Your task to perform on an android device: toggle translation in the chrome app Image 0: 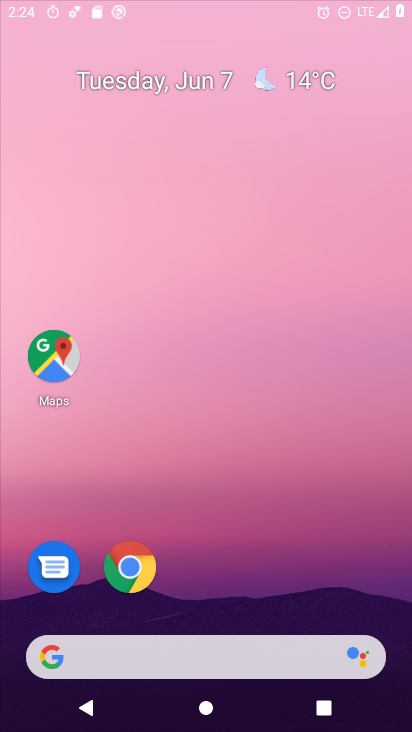
Step 0: drag from (270, 563) to (385, 18)
Your task to perform on an android device: toggle translation in the chrome app Image 1: 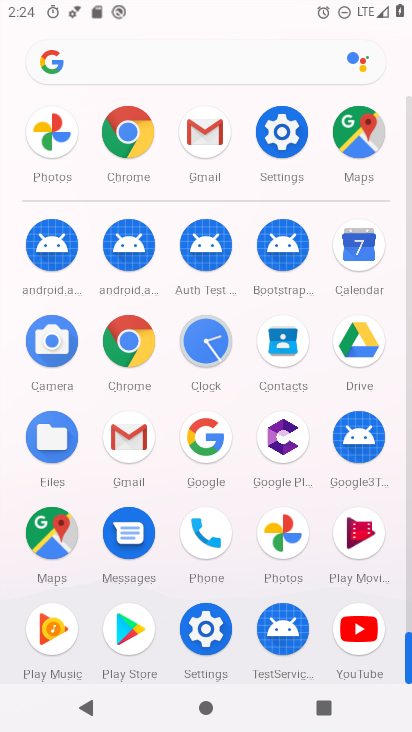
Step 1: click (141, 137)
Your task to perform on an android device: toggle translation in the chrome app Image 2: 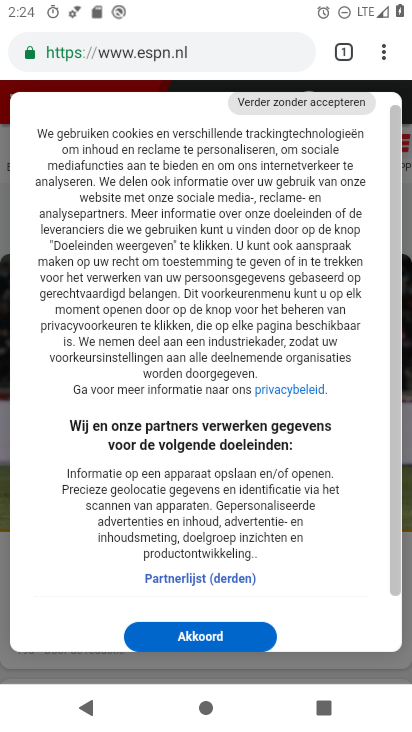
Step 2: drag from (382, 53) to (180, 611)
Your task to perform on an android device: toggle translation in the chrome app Image 3: 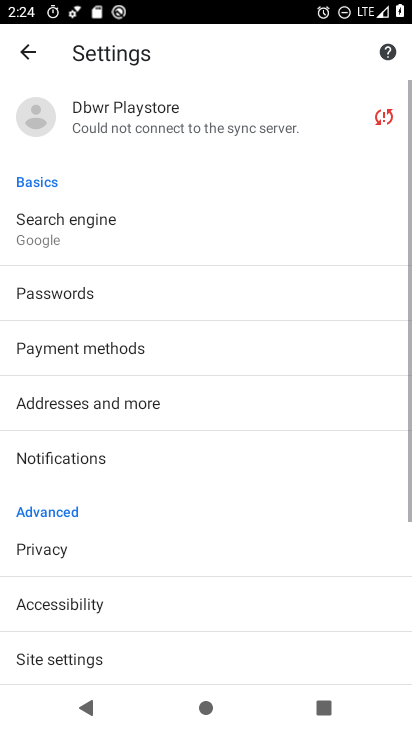
Step 3: drag from (89, 622) to (187, 109)
Your task to perform on an android device: toggle translation in the chrome app Image 4: 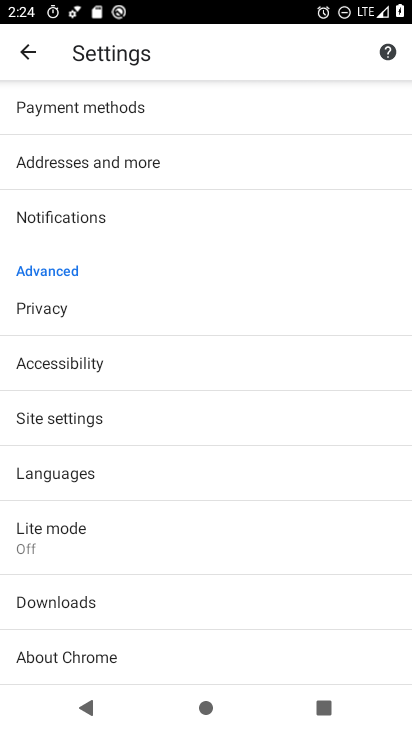
Step 4: click (91, 470)
Your task to perform on an android device: toggle translation in the chrome app Image 5: 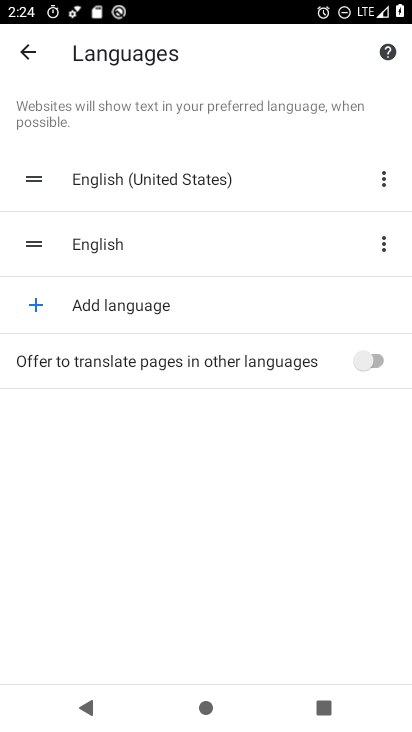
Step 5: click (371, 360)
Your task to perform on an android device: toggle translation in the chrome app Image 6: 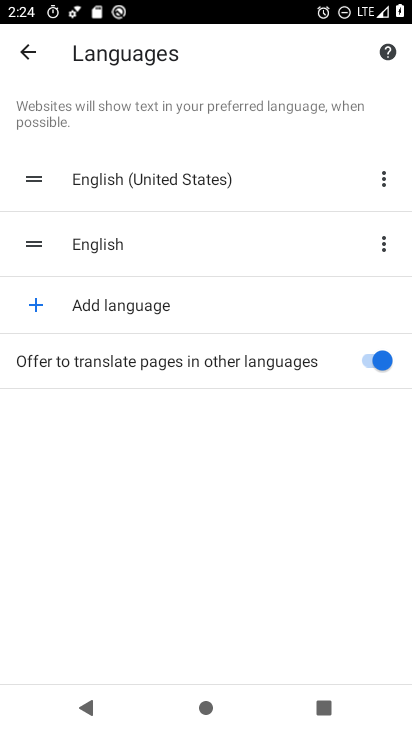
Step 6: task complete